Your task to perform on an android device: see tabs open on other devices in the chrome app Image 0: 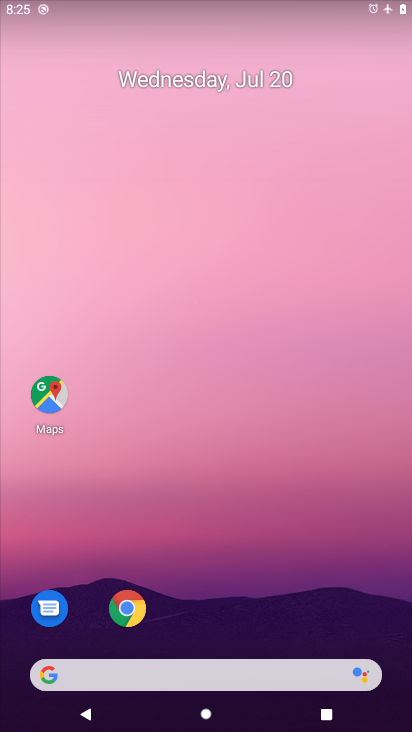
Step 0: drag from (215, 471) to (238, 141)
Your task to perform on an android device: see tabs open on other devices in the chrome app Image 1: 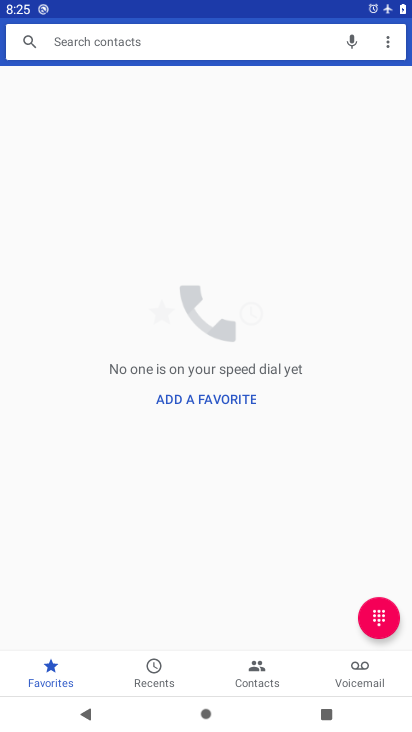
Step 1: press home button
Your task to perform on an android device: see tabs open on other devices in the chrome app Image 2: 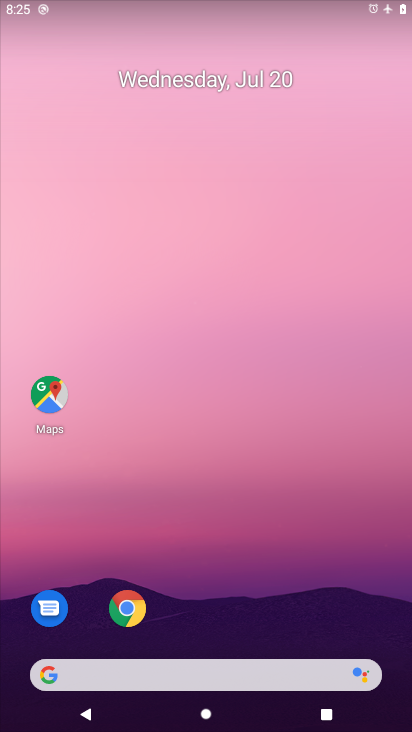
Step 2: click (125, 617)
Your task to perform on an android device: see tabs open on other devices in the chrome app Image 3: 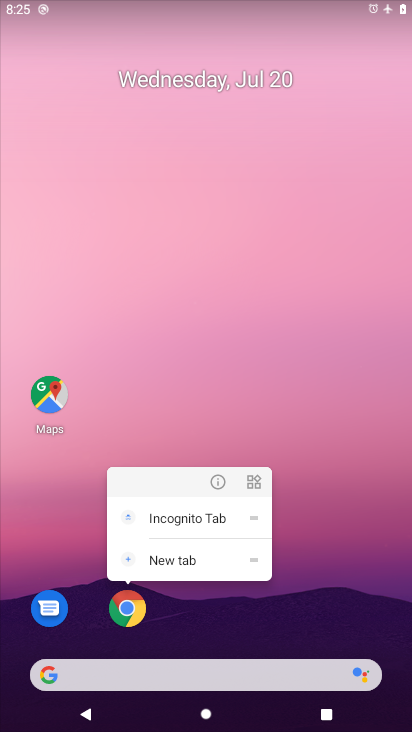
Step 3: click (135, 599)
Your task to perform on an android device: see tabs open on other devices in the chrome app Image 4: 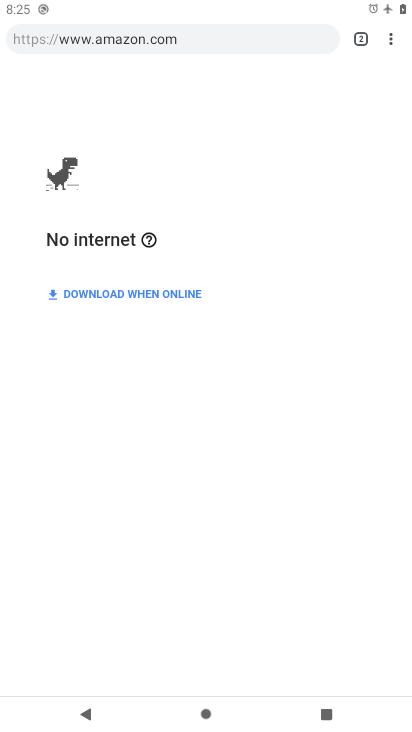
Step 4: click (389, 40)
Your task to perform on an android device: see tabs open on other devices in the chrome app Image 5: 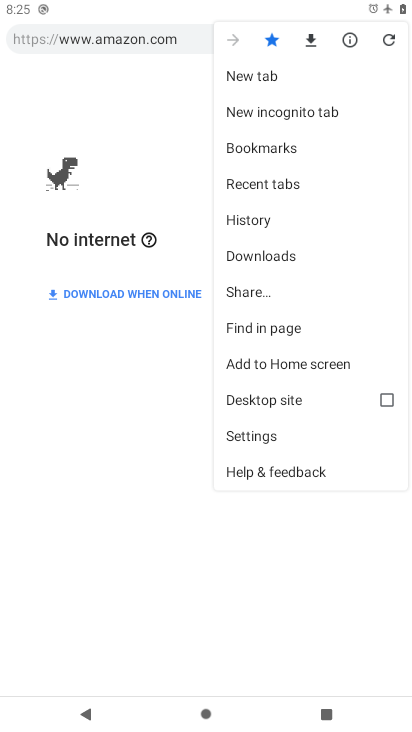
Step 5: click (261, 189)
Your task to perform on an android device: see tabs open on other devices in the chrome app Image 6: 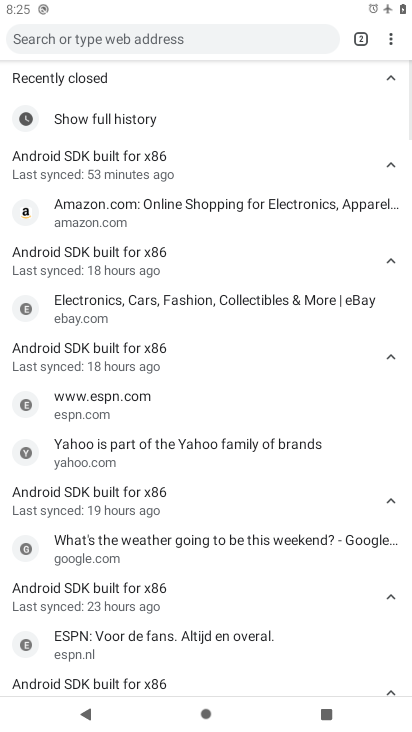
Step 6: task complete